Your task to perform on an android device: change the upload size in google photos Image 0: 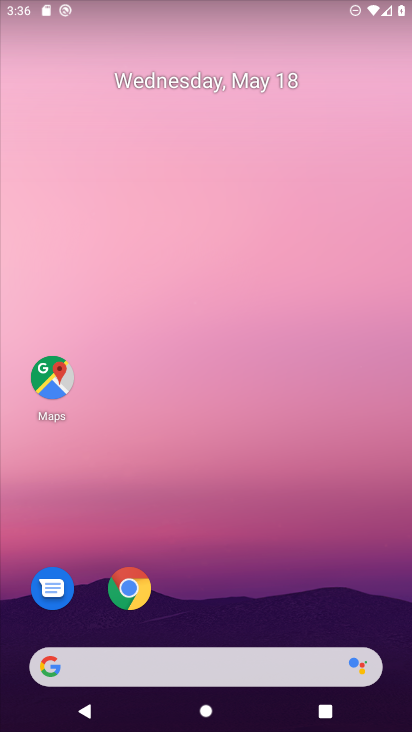
Step 0: drag from (231, 559) to (289, 101)
Your task to perform on an android device: change the upload size in google photos Image 1: 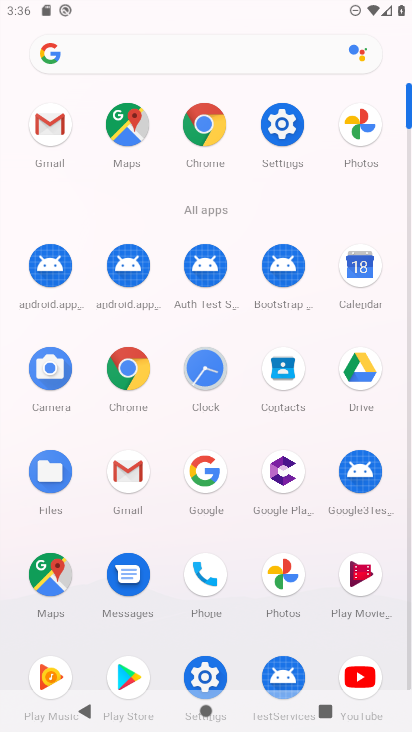
Step 1: click (369, 143)
Your task to perform on an android device: change the upload size in google photos Image 2: 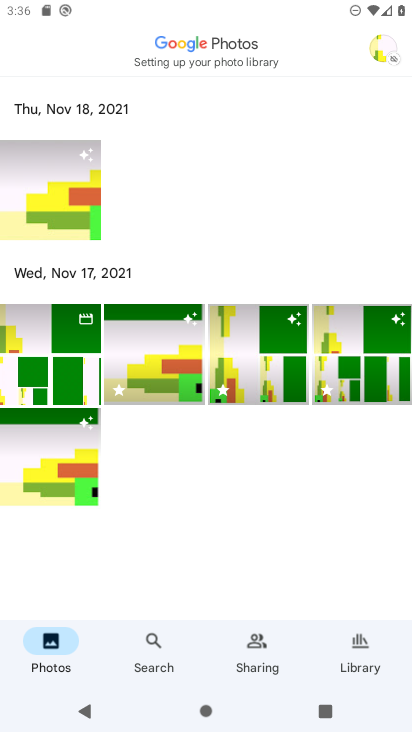
Step 2: click (386, 52)
Your task to perform on an android device: change the upload size in google photos Image 3: 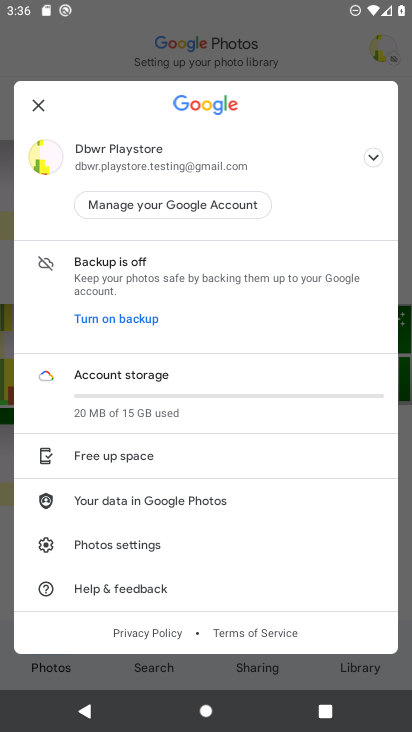
Step 3: click (154, 549)
Your task to perform on an android device: change the upload size in google photos Image 4: 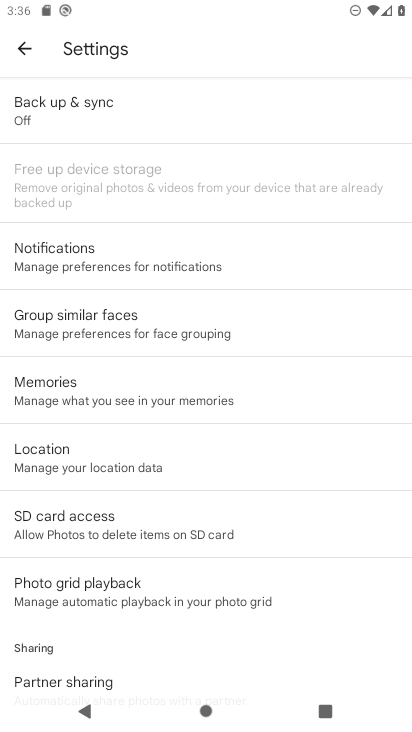
Step 4: click (176, 118)
Your task to perform on an android device: change the upload size in google photos Image 5: 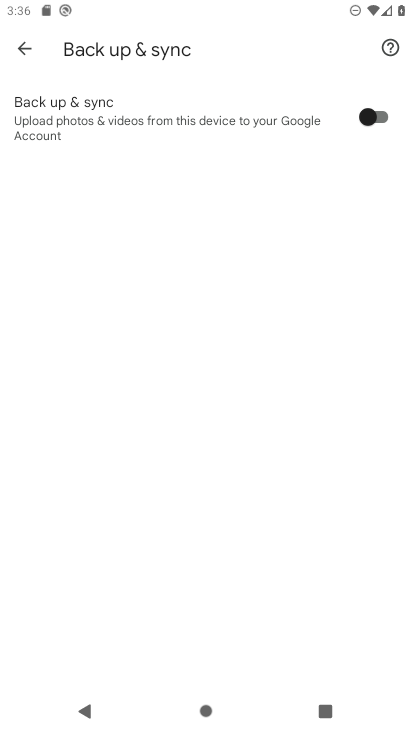
Step 5: click (212, 91)
Your task to perform on an android device: change the upload size in google photos Image 6: 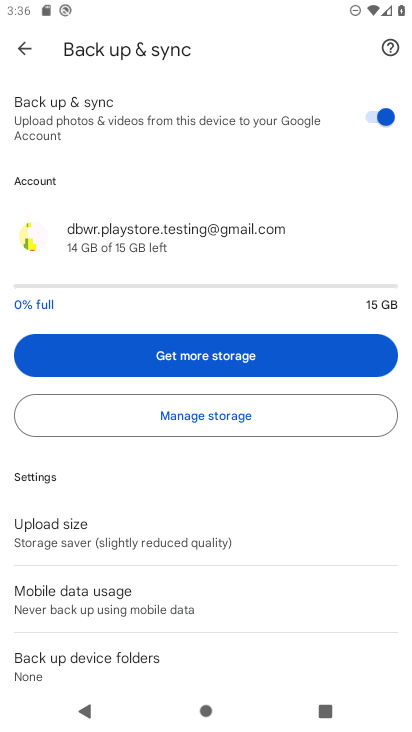
Step 6: task complete